Your task to perform on an android device: clear history in the chrome app Image 0: 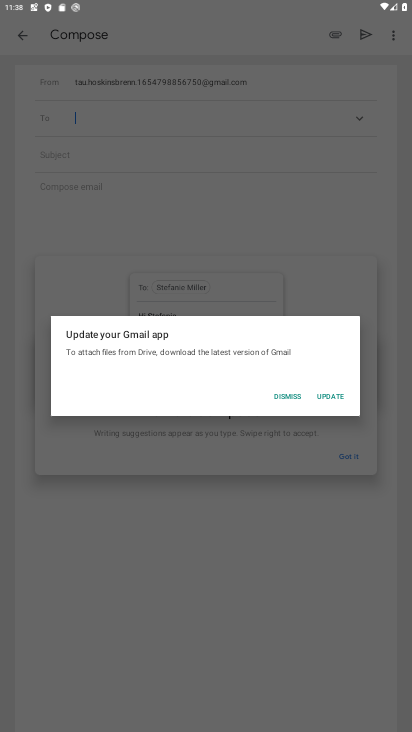
Step 0: press home button
Your task to perform on an android device: clear history in the chrome app Image 1: 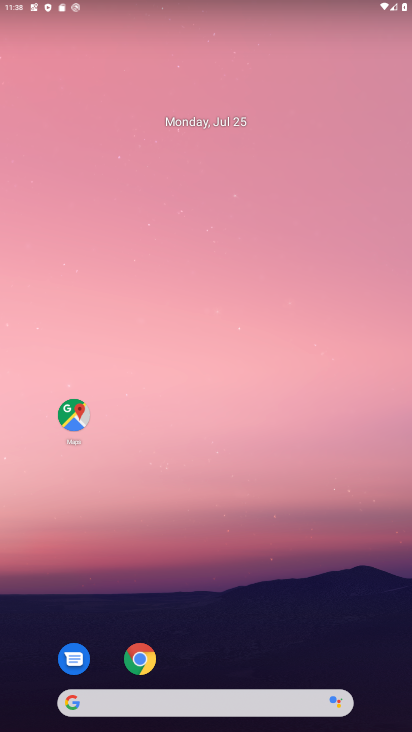
Step 1: click (131, 663)
Your task to perform on an android device: clear history in the chrome app Image 2: 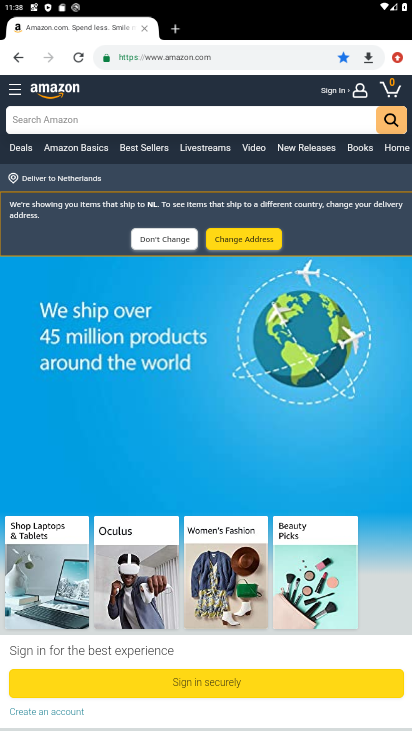
Step 2: click (394, 54)
Your task to perform on an android device: clear history in the chrome app Image 3: 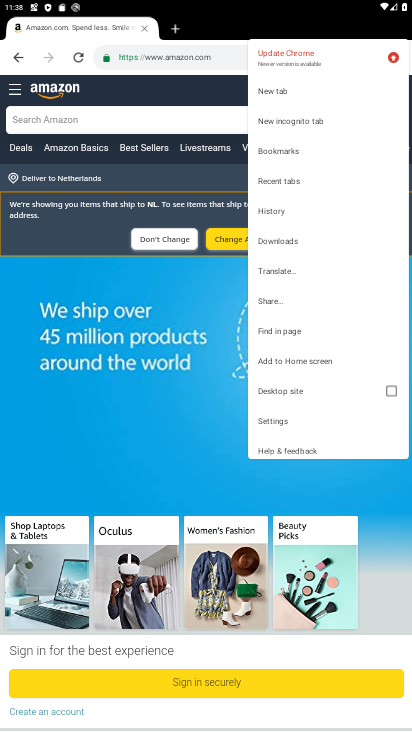
Step 3: click (277, 213)
Your task to perform on an android device: clear history in the chrome app Image 4: 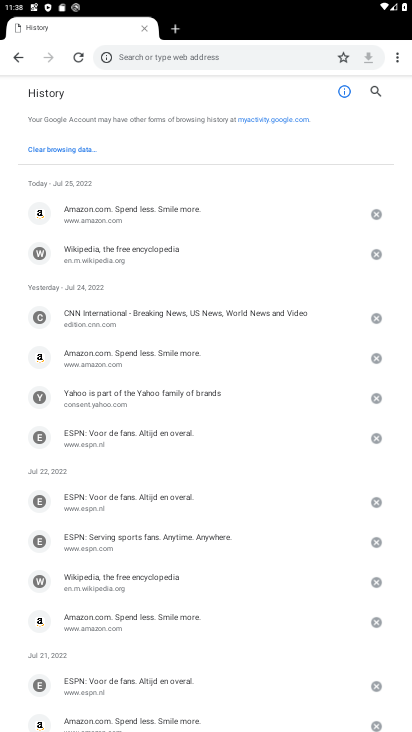
Step 4: click (58, 149)
Your task to perform on an android device: clear history in the chrome app Image 5: 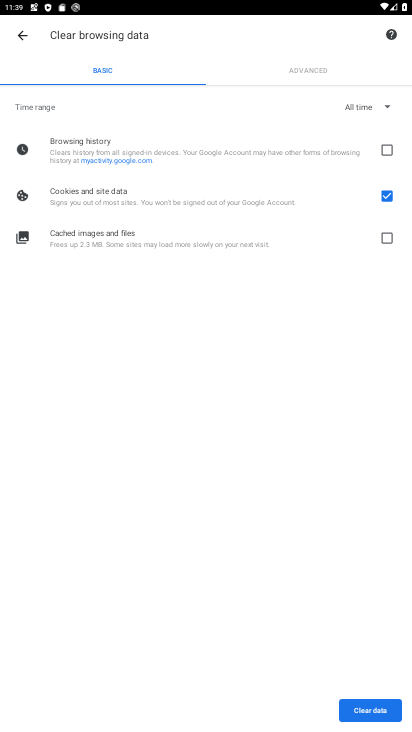
Step 5: click (358, 714)
Your task to perform on an android device: clear history in the chrome app Image 6: 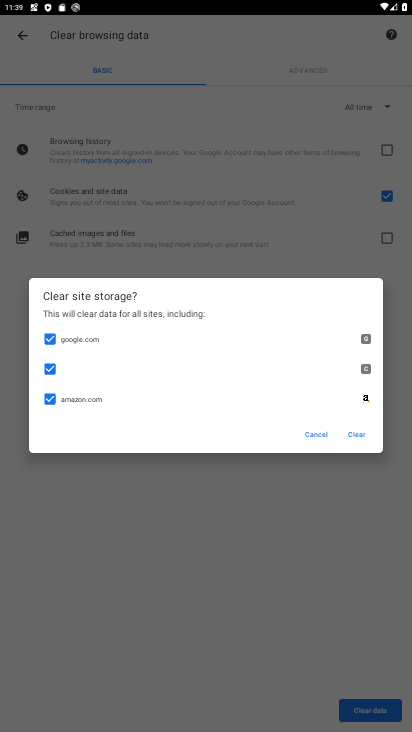
Step 6: click (327, 433)
Your task to perform on an android device: clear history in the chrome app Image 7: 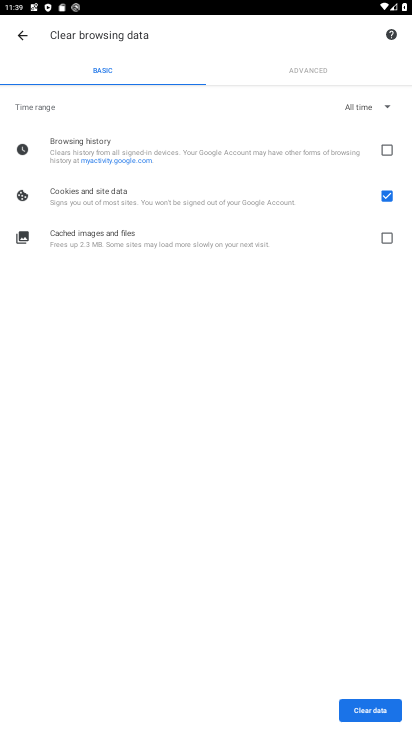
Step 7: click (387, 231)
Your task to perform on an android device: clear history in the chrome app Image 8: 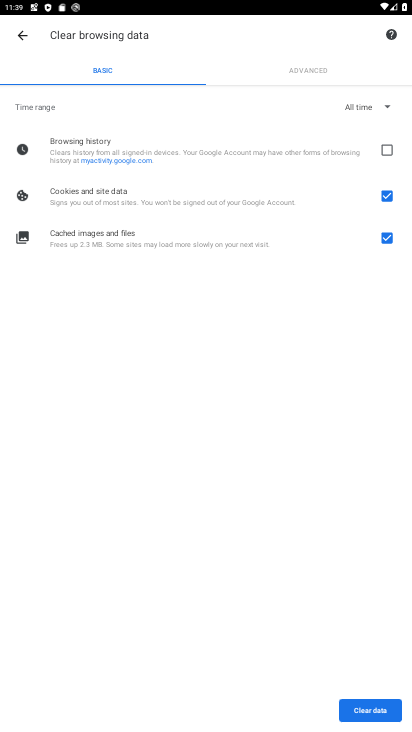
Step 8: click (387, 149)
Your task to perform on an android device: clear history in the chrome app Image 9: 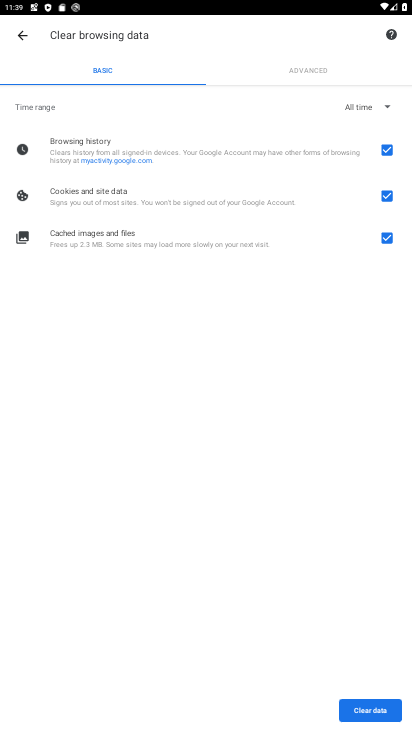
Step 9: click (355, 708)
Your task to perform on an android device: clear history in the chrome app Image 10: 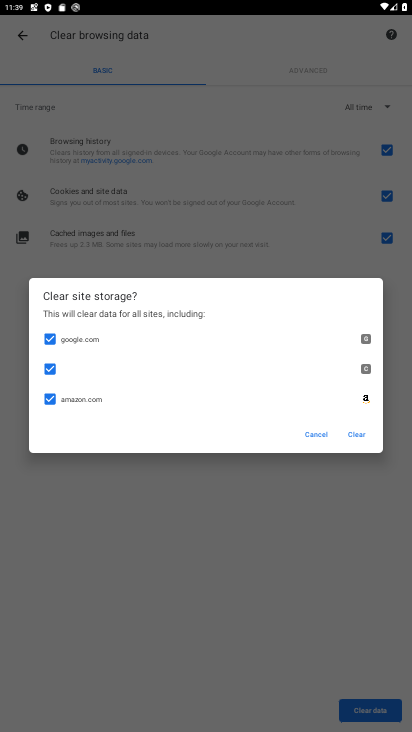
Step 10: click (363, 432)
Your task to perform on an android device: clear history in the chrome app Image 11: 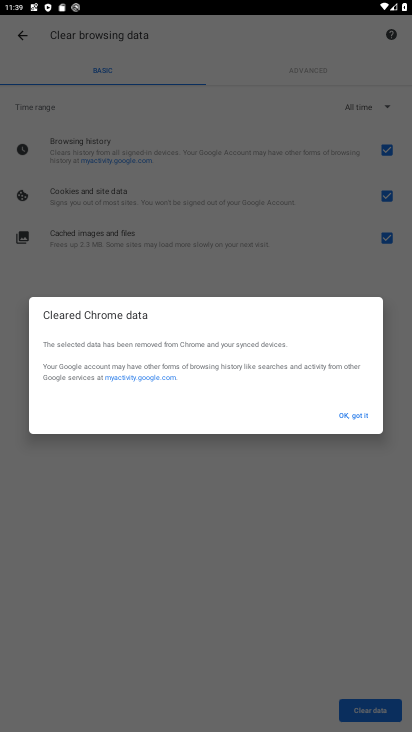
Step 11: click (346, 414)
Your task to perform on an android device: clear history in the chrome app Image 12: 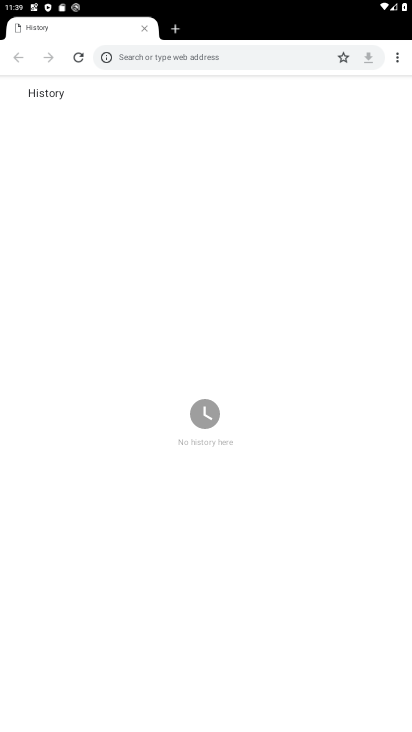
Step 12: task complete